Your task to perform on an android device: set the stopwatch Image 0: 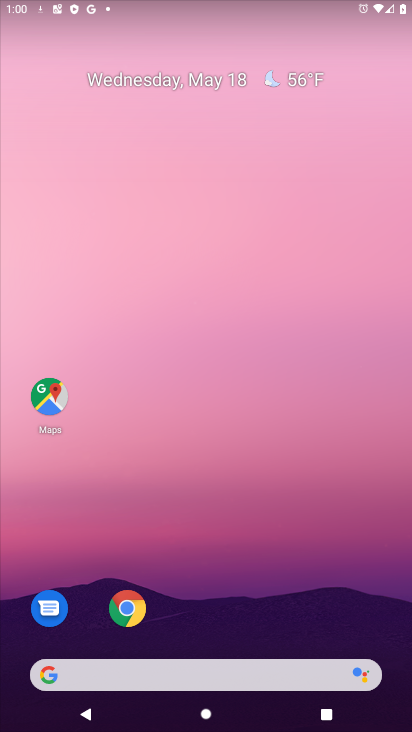
Step 0: press home button
Your task to perform on an android device: set the stopwatch Image 1: 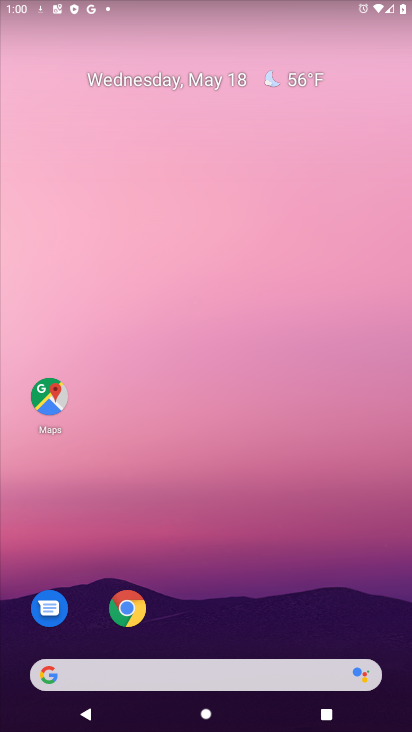
Step 1: drag from (242, 695) to (333, 134)
Your task to perform on an android device: set the stopwatch Image 2: 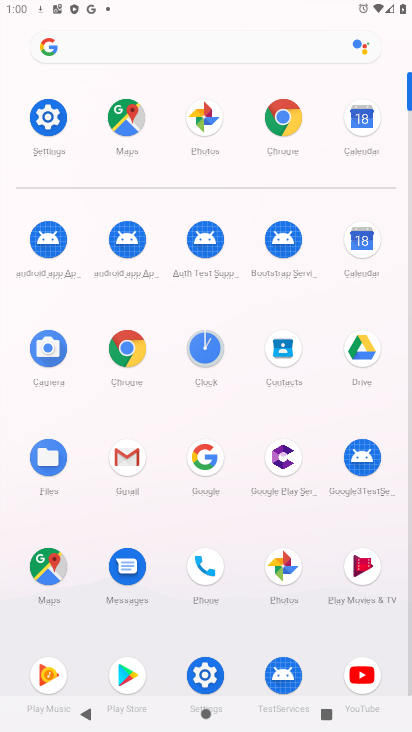
Step 2: click (197, 368)
Your task to perform on an android device: set the stopwatch Image 3: 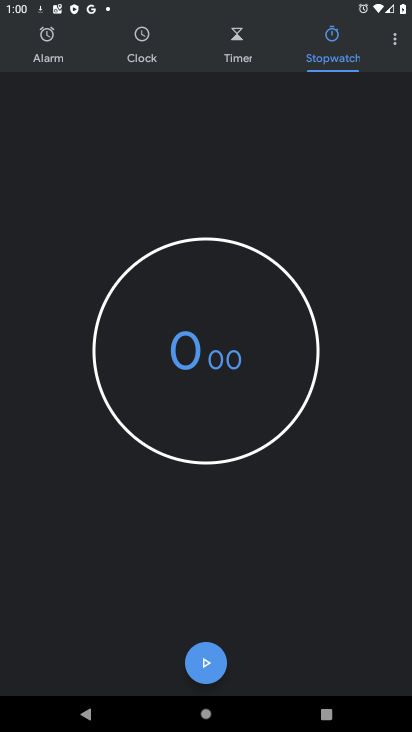
Step 3: click (222, 656)
Your task to perform on an android device: set the stopwatch Image 4: 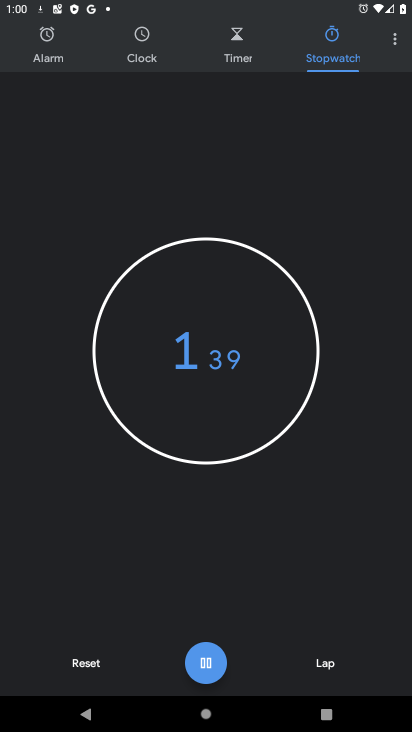
Step 4: click (207, 671)
Your task to perform on an android device: set the stopwatch Image 5: 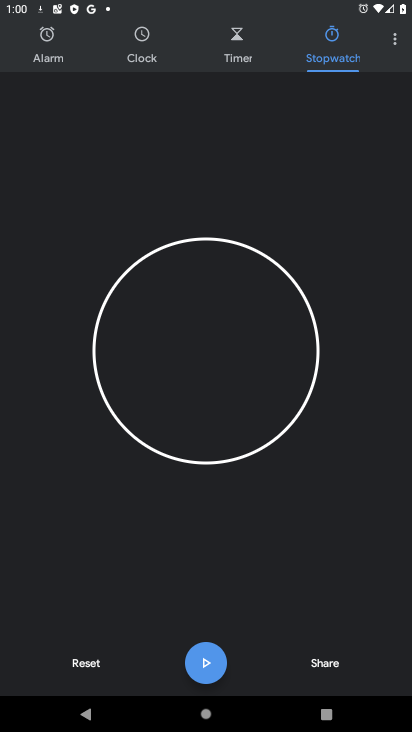
Step 5: task complete